Your task to perform on an android device: toggle wifi Image 0: 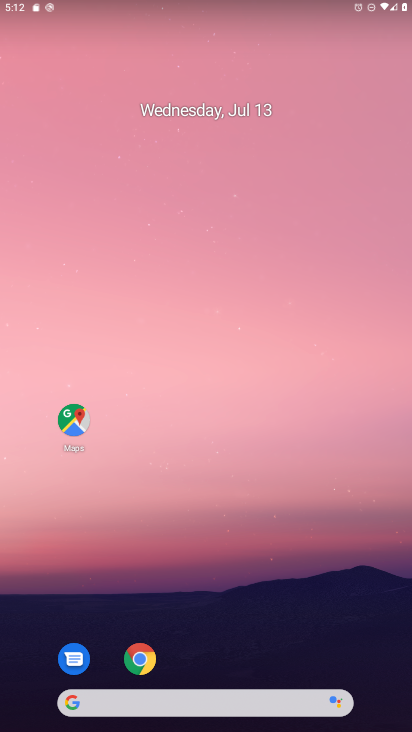
Step 0: drag from (260, 654) to (246, 90)
Your task to perform on an android device: toggle wifi Image 1: 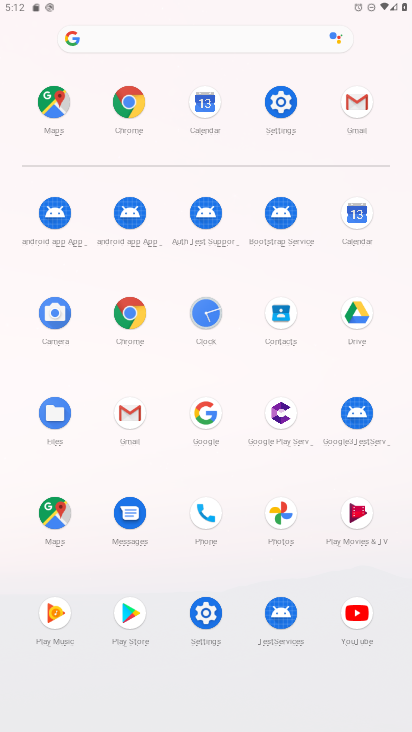
Step 1: click (283, 111)
Your task to perform on an android device: toggle wifi Image 2: 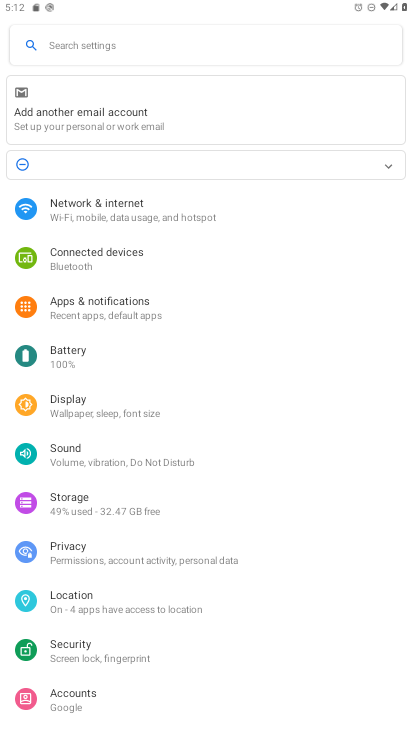
Step 2: click (102, 220)
Your task to perform on an android device: toggle wifi Image 3: 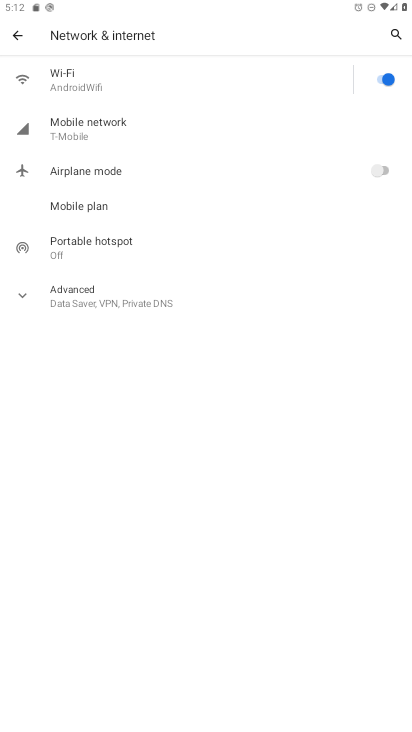
Step 3: click (370, 72)
Your task to perform on an android device: toggle wifi Image 4: 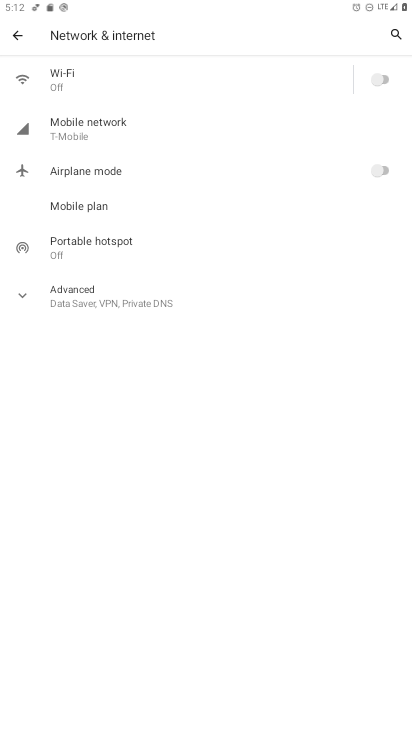
Step 4: task complete